Your task to perform on an android device: toggle location history Image 0: 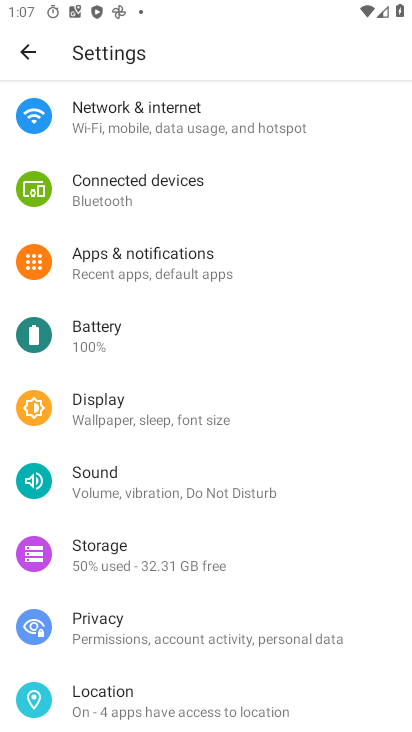
Step 0: press home button
Your task to perform on an android device: toggle location history Image 1: 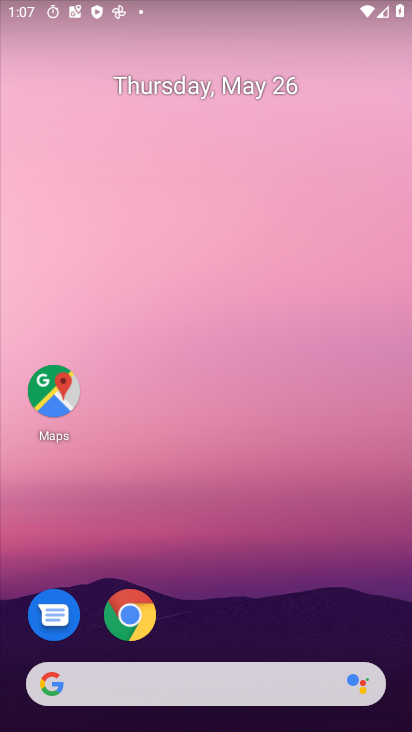
Step 1: drag from (244, 630) to (200, 292)
Your task to perform on an android device: toggle location history Image 2: 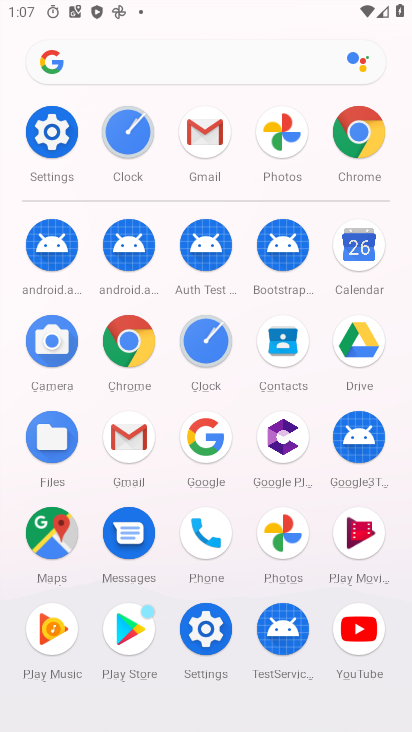
Step 2: click (43, 530)
Your task to perform on an android device: toggle location history Image 3: 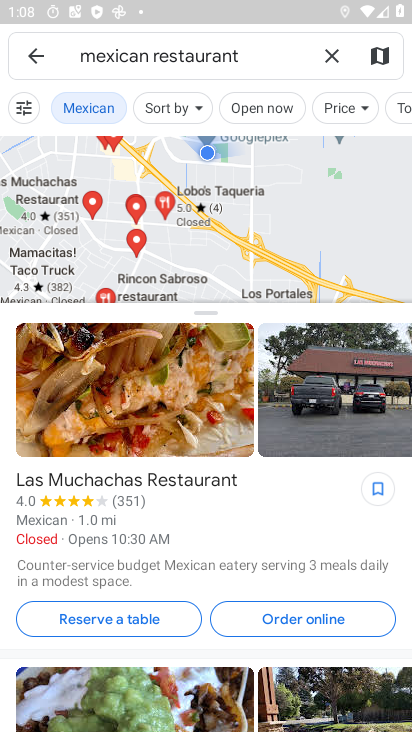
Step 3: click (34, 56)
Your task to perform on an android device: toggle location history Image 4: 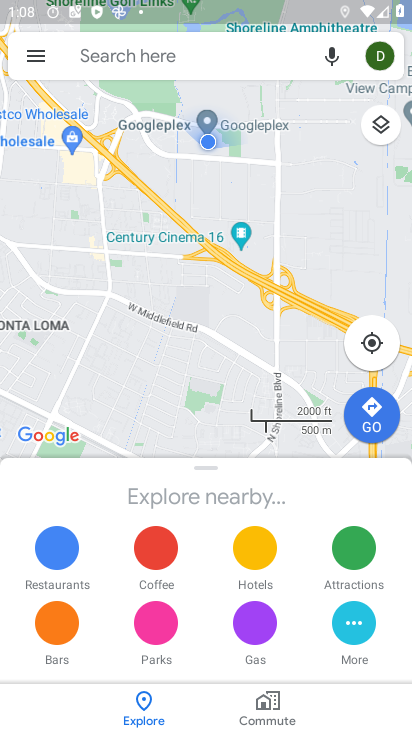
Step 4: click (34, 56)
Your task to perform on an android device: toggle location history Image 5: 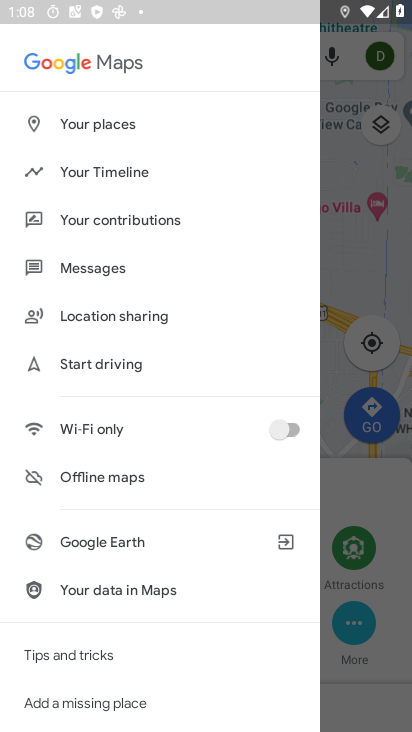
Step 5: click (114, 163)
Your task to perform on an android device: toggle location history Image 6: 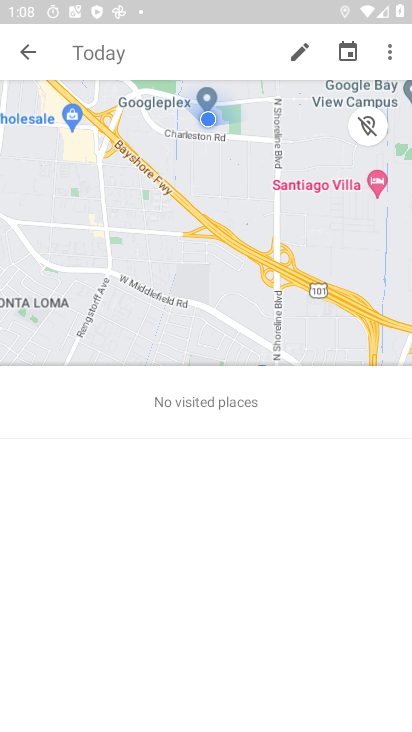
Step 6: click (386, 50)
Your task to perform on an android device: toggle location history Image 7: 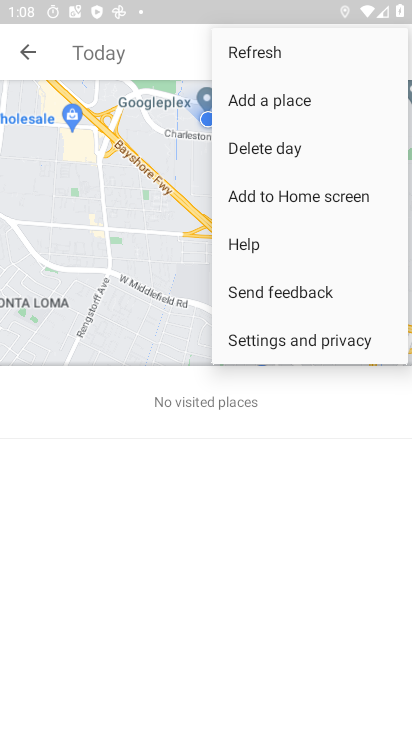
Step 7: click (363, 353)
Your task to perform on an android device: toggle location history Image 8: 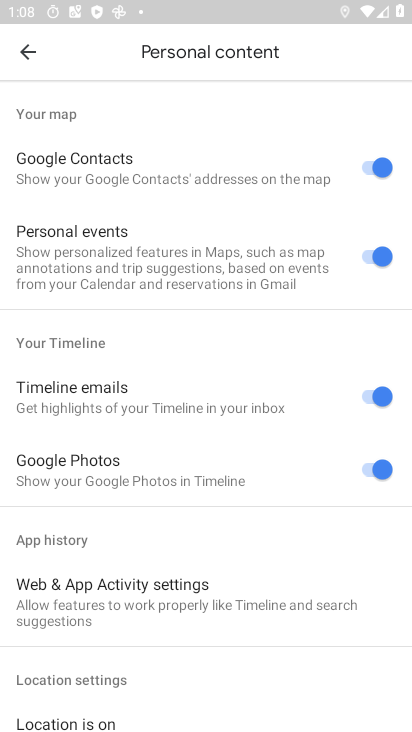
Step 8: drag from (251, 666) to (181, 217)
Your task to perform on an android device: toggle location history Image 9: 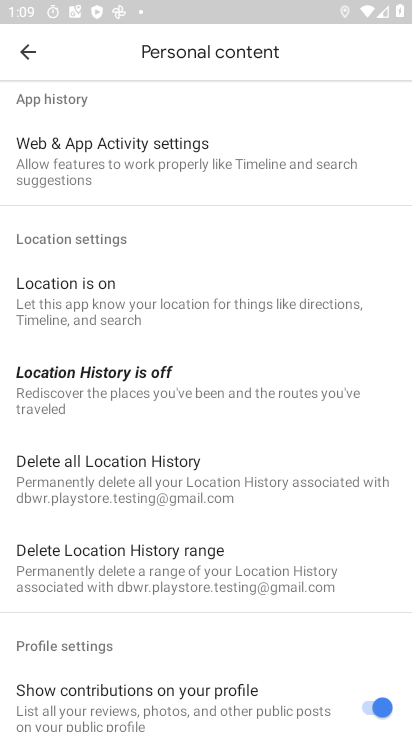
Step 9: click (150, 405)
Your task to perform on an android device: toggle location history Image 10: 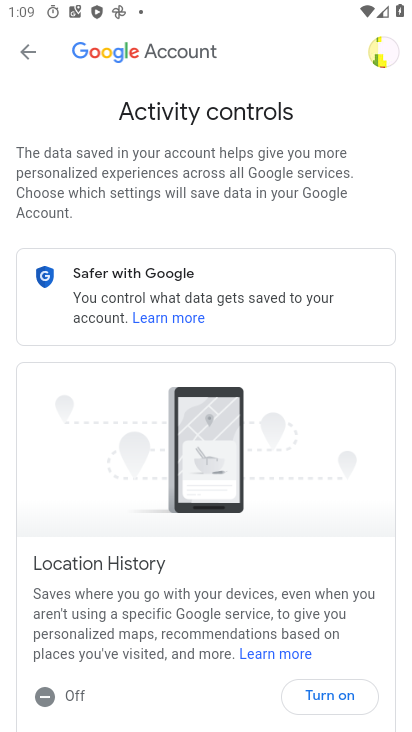
Step 10: drag from (245, 663) to (235, 337)
Your task to perform on an android device: toggle location history Image 11: 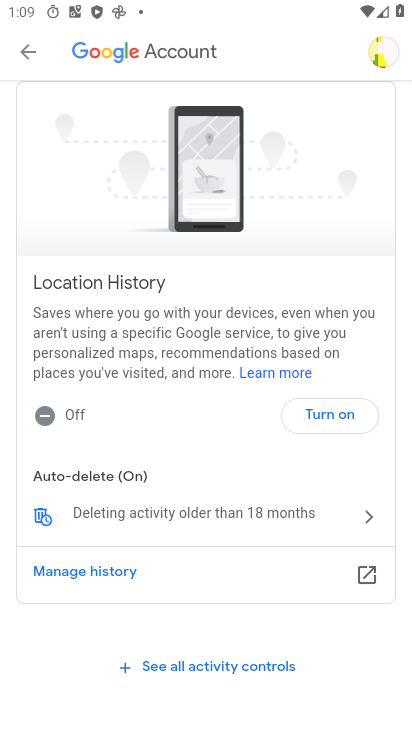
Step 11: click (341, 409)
Your task to perform on an android device: toggle location history Image 12: 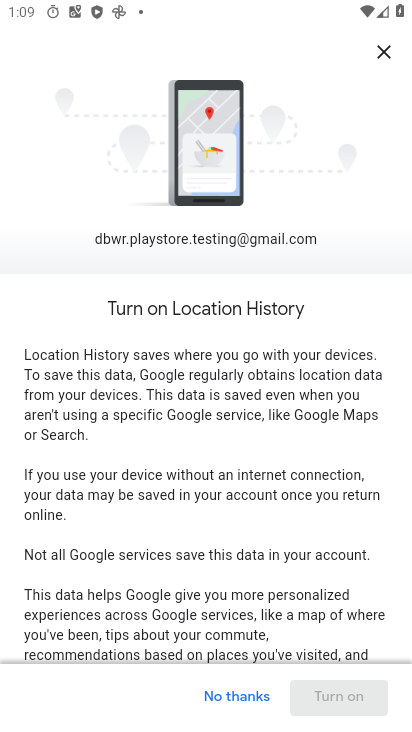
Step 12: drag from (321, 643) to (239, 133)
Your task to perform on an android device: toggle location history Image 13: 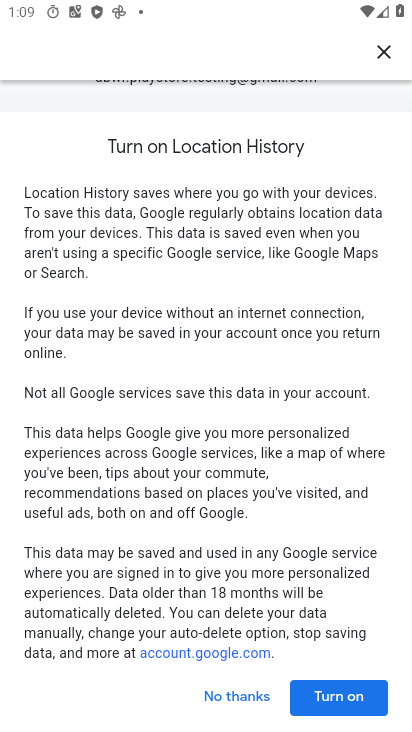
Step 13: click (367, 692)
Your task to perform on an android device: toggle location history Image 14: 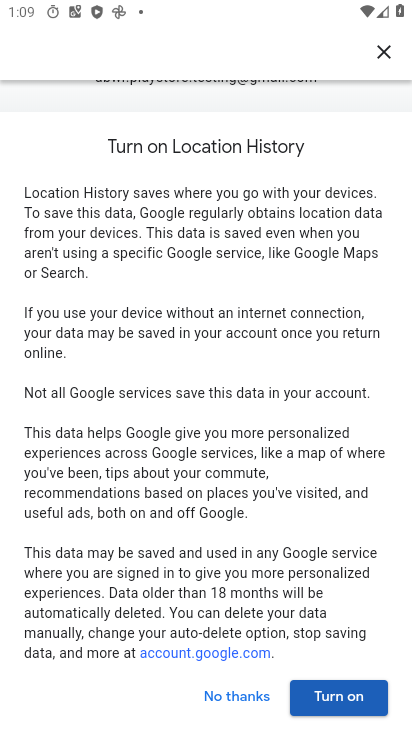
Step 14: click (352, 703)
Your task to perform on an android device: toggle location history Image 15: 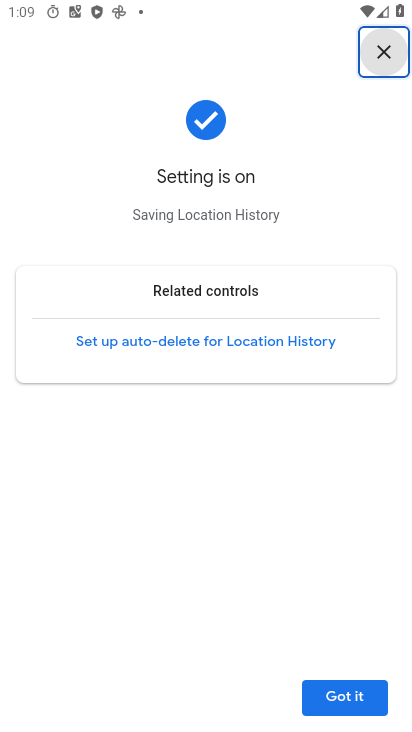
Step 15: click (350, 698)
Your task to perform on an android device: toggle location history Image 16: 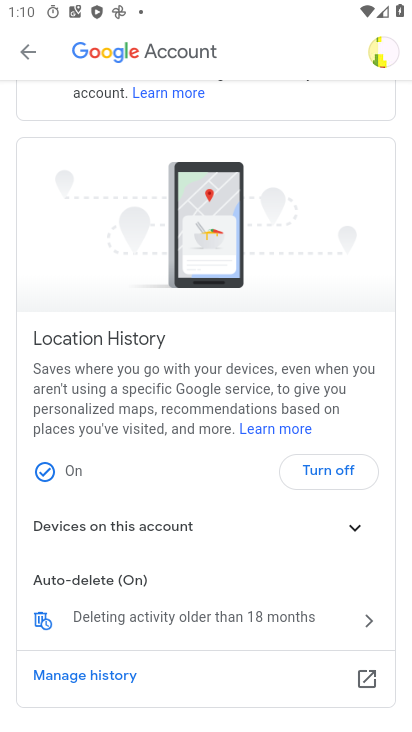
Step 16: task complete